Your task to perform on an android device: turn on notifications settings in the gmail app Image 0: 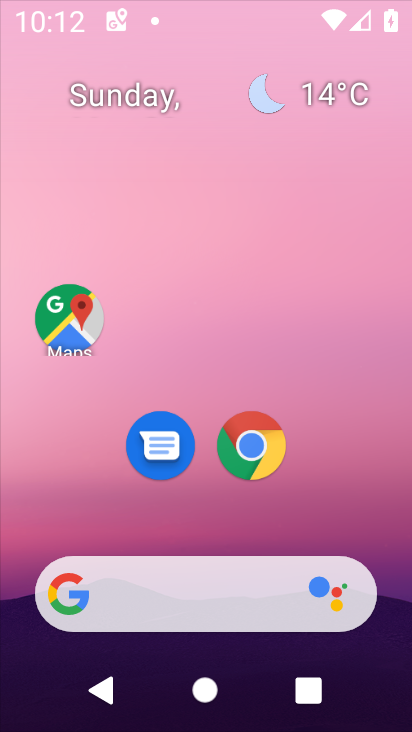
Step 0: click (362, 25)
Your task to perform on an android device: turn on notifications settings in the gmail app Image 1: 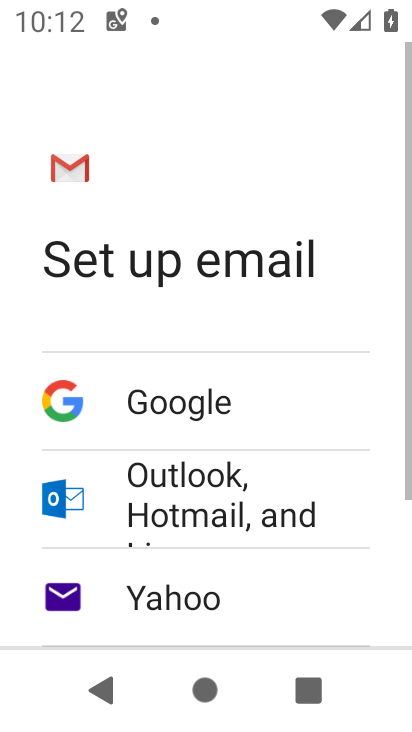
Step 1: click (316, 84)
Your task to perform on an android device: turn on notifications settings in the gmail app Image 2: 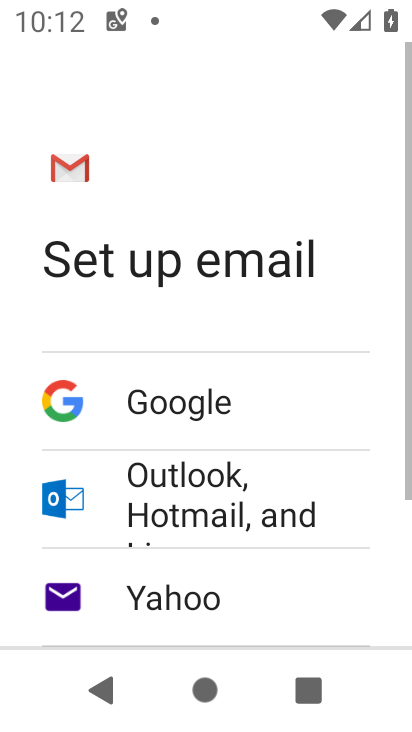
Step 2: drag from (189, 468) to (240, 232)
Your task to perform on an android device: turn on notifications settings in the gmail app Image 3: 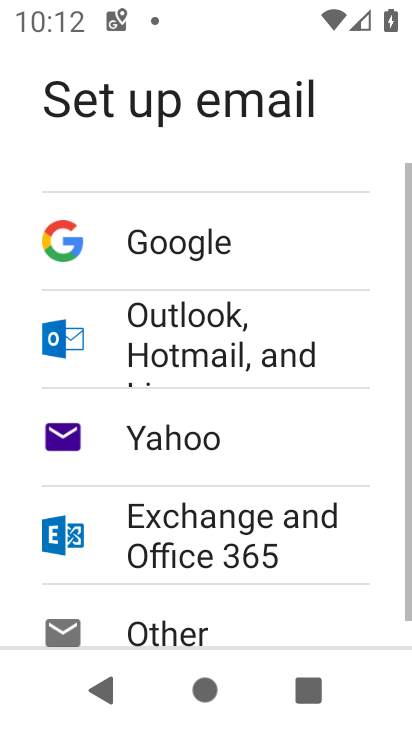
Step 3: drag from (203, 579) to (215, 207)
Your task to perform on an android device: turn on notifications settings in the gmail app Image 4: 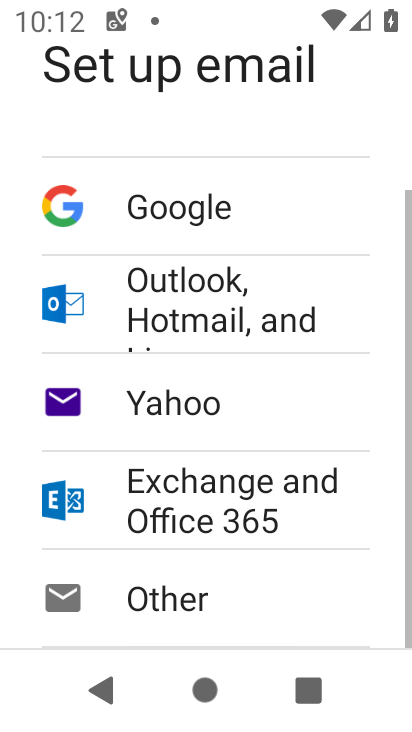
Step 4: drag from (236, 189) to (299, 728)
Your task to perform on an android device: turn on notifications settings in the gmail app Image 5: 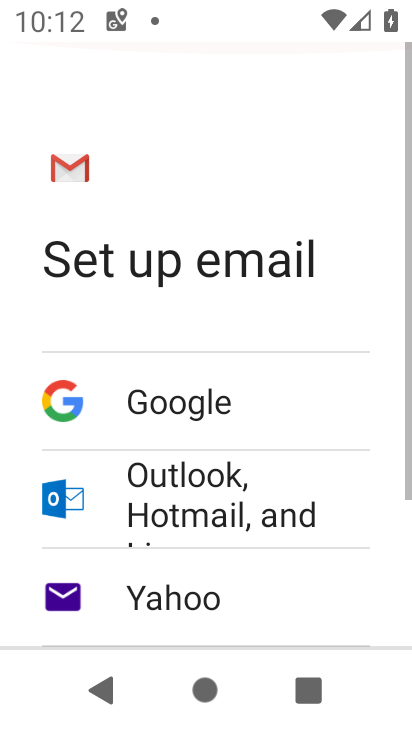
Step 5: press home button
Your task to perform on an android device: turn on notifications settings in the gmail app Image 6: 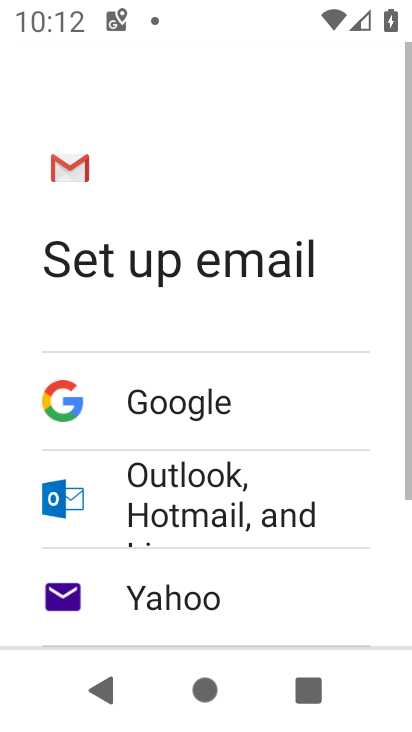
Step 6: drag from (299, 728) to (402, 392)
Your task to perform on an android device: turn on notifications settings in the gmail app Image 7: 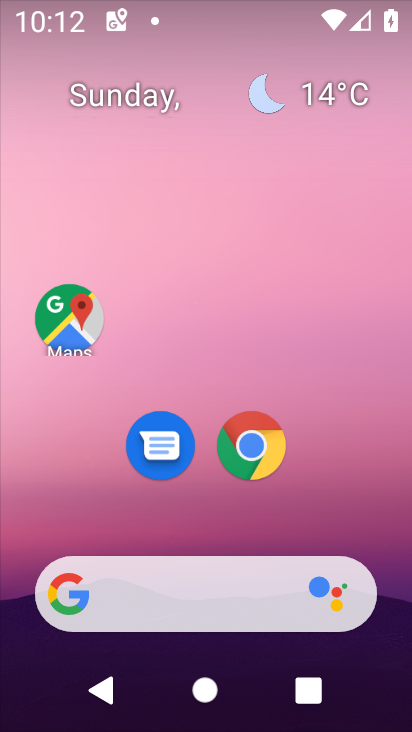
Step 7: drag from (184, 494) to (226, 20)
Your task to perform on an android device: turn on notifications settings in the gmail app Image 8: 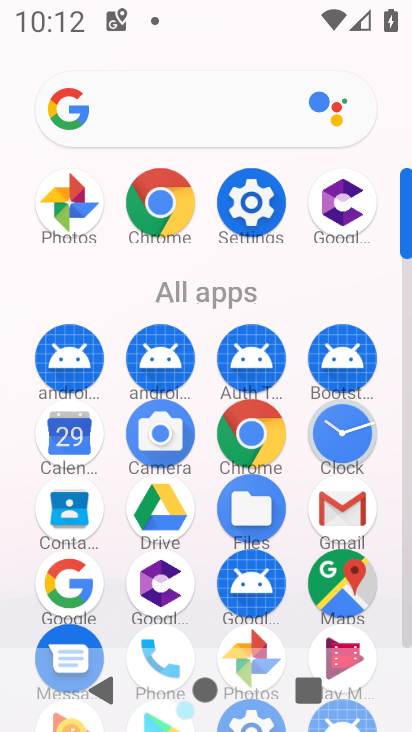
Step 8: click (319, 497)
Your task to perform on an android device: turn on notifications settings in the gmail app Image 9: 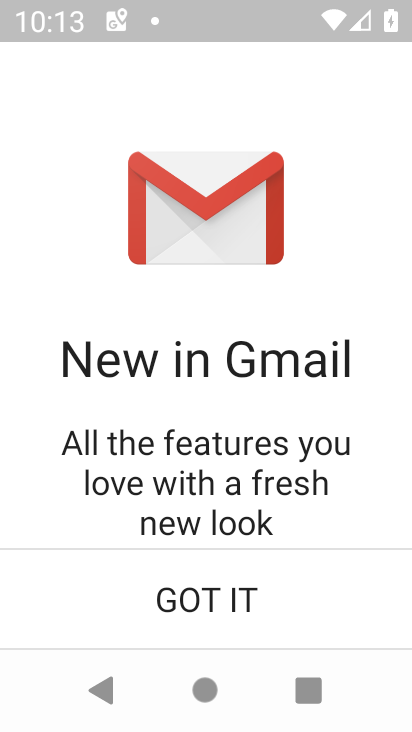
Step 9: click (196, 567)
Your task to perform on an android device: turn on notifications settings in the gmail app Image 10: 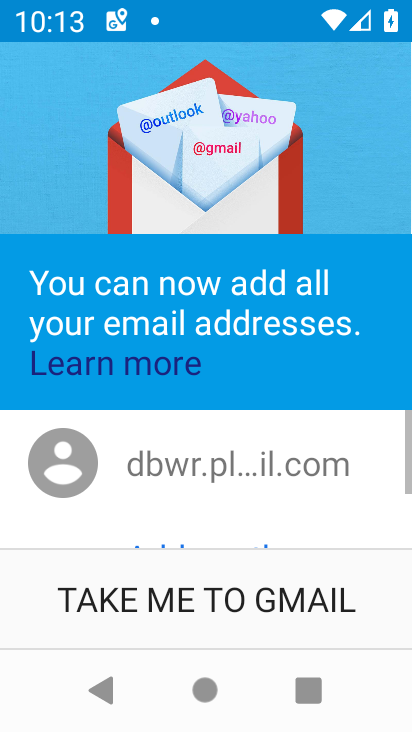
Step 10: click (189, 620)
Your task to perform on an android device: turn on notifications settings in the gmail app Image 11: 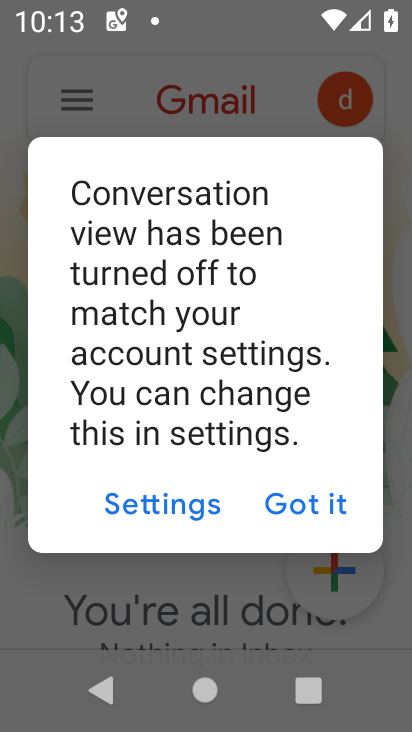
Step 11: click (297, 490)
Your task to perform on an android device: turn on notifications settings in the gmail app Image 12: 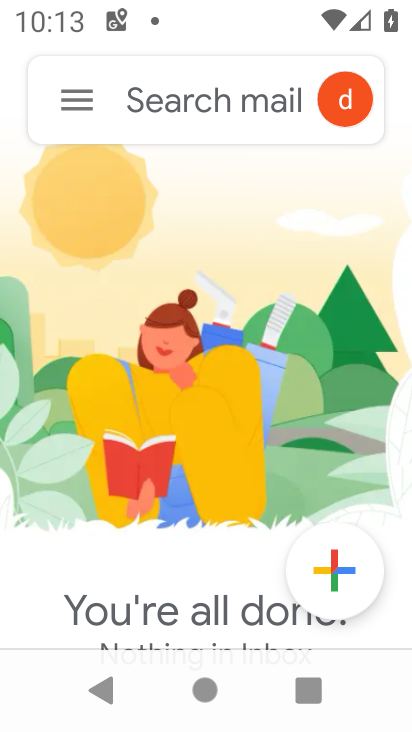
Step 12: click (76, 98)
Your task to perform on an android device: turn on notifications settings in the gmail app Image 13: 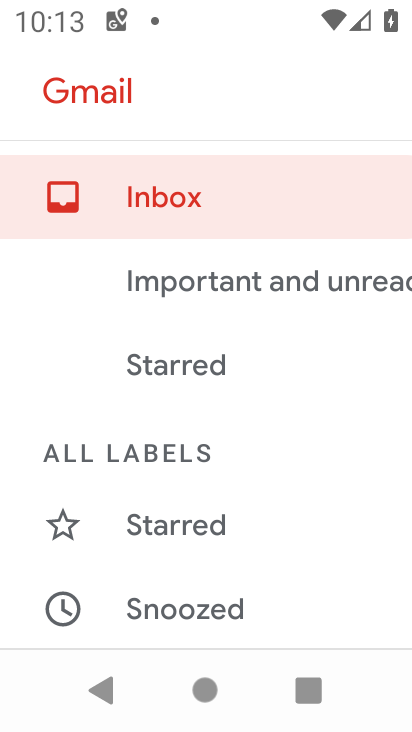
Step 13: drag from (215, 544) to (302, 1)
Your task to perform on an android device: turn on notifications settings in the gmail app Image 14: 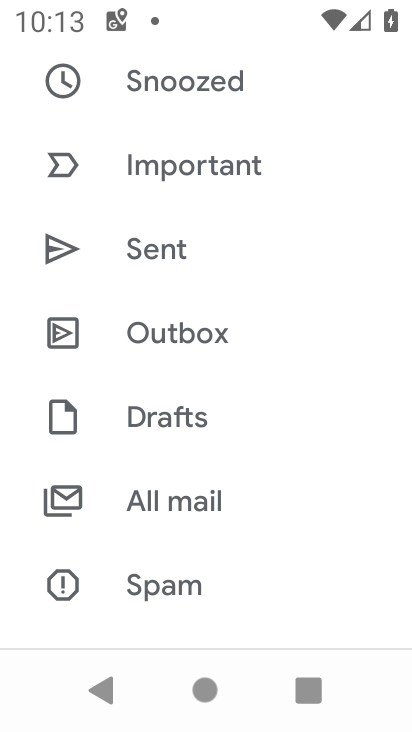
Step 14: drag from (213, 550) to (290, 110)
Your task to perform on an android device: turn on notifications settings in the gmail app Image 15: 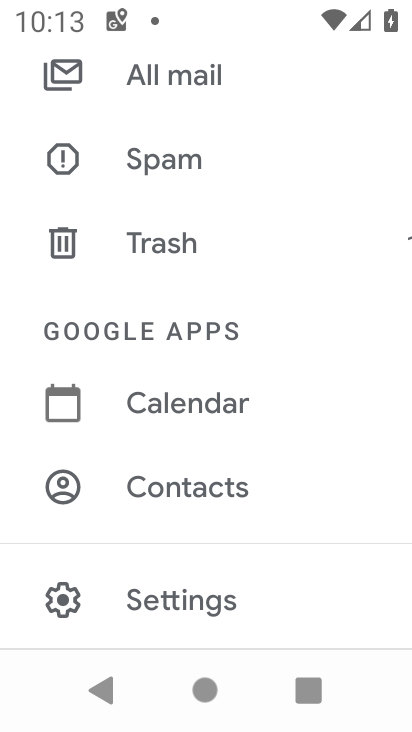
Step 15: click (139, 595)
Your task to perform on an android device: turn on notifications settings in the gmail app Image 16: 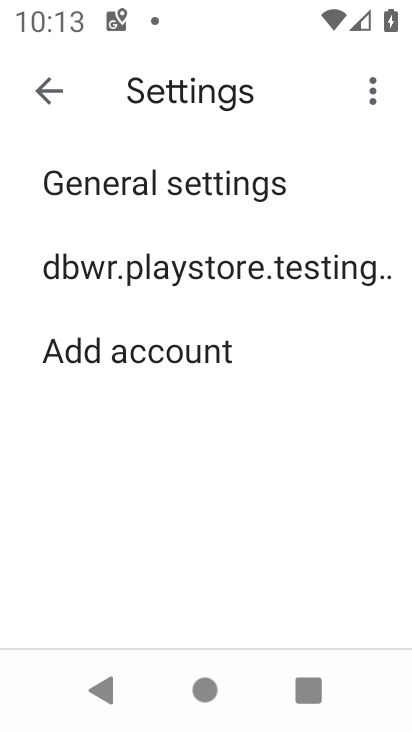
Step 16: click (246, 263)
Your task to perform on an android device: turn on notifications settings in the gmail app Image 17: 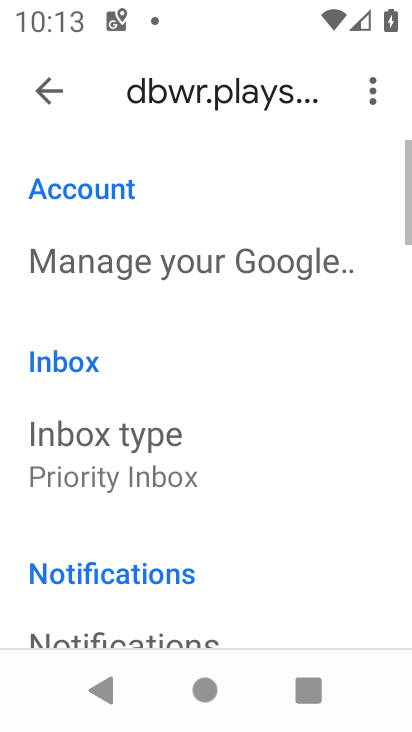
Step 17: drag from (265, 499) to (362, 68)
Your task to perform on an android device: turn on notifications settings in the gmail app Image 18: 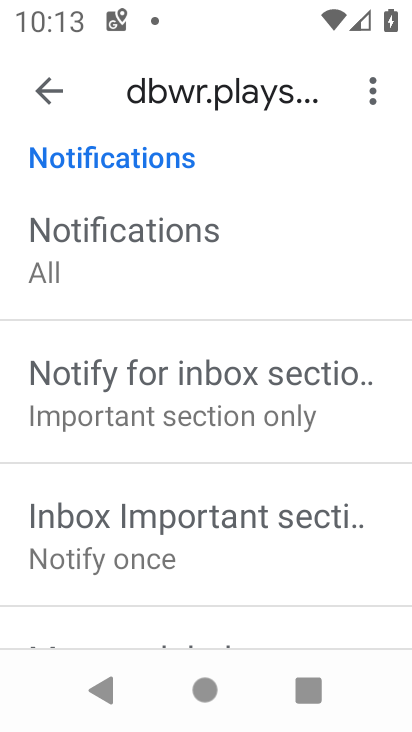
Step 18: drag from (195, 509) to (275, 125)
Your task to perform on an android device: turn on notifications settings in the gmail app Image 19: 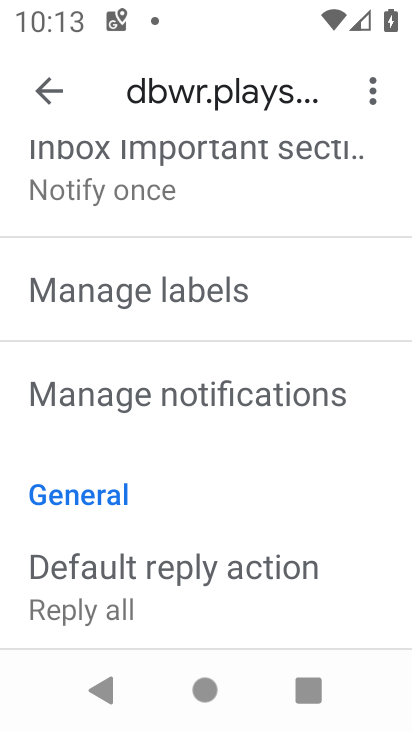
Step 19: click (159, 385)
Your task to perform on an android device: turn on notifications settings in the gmail app Image 20: 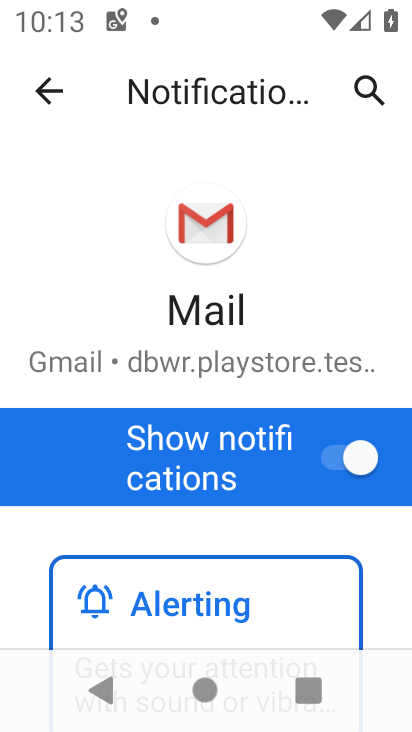
Step 20: task complete